Your task to perform on an android device: turn smart compose on in the gmail app Image 0: 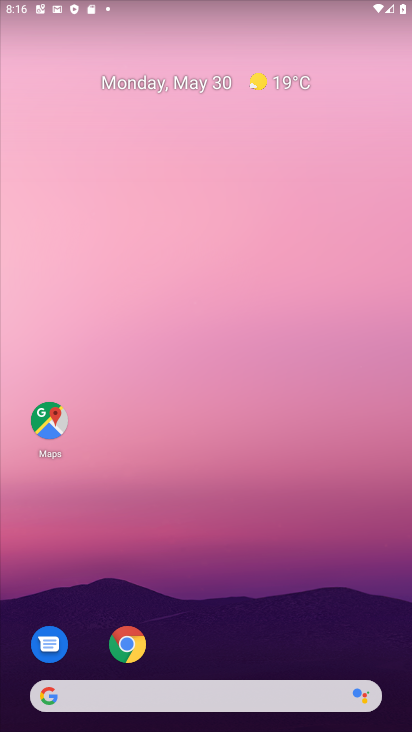
Step 0: drag from (397, 566) to (351, 149)
Your task to perform on an android device: turn smart compose on in the gmail app Image 1: 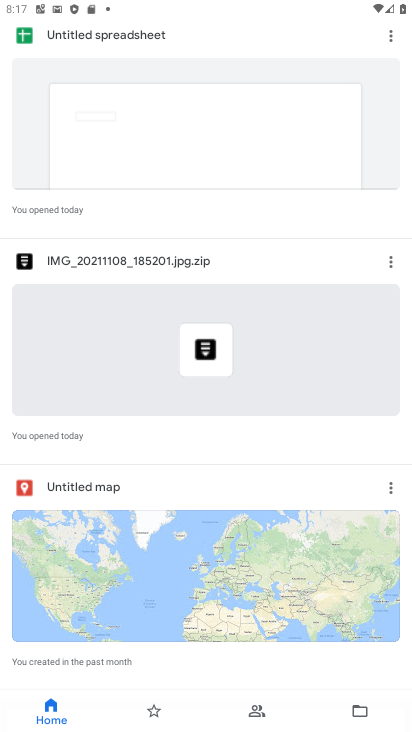
Step 1: press home button
Your task to perform on an android device: turn smart compose on in the gmail app Image 2: 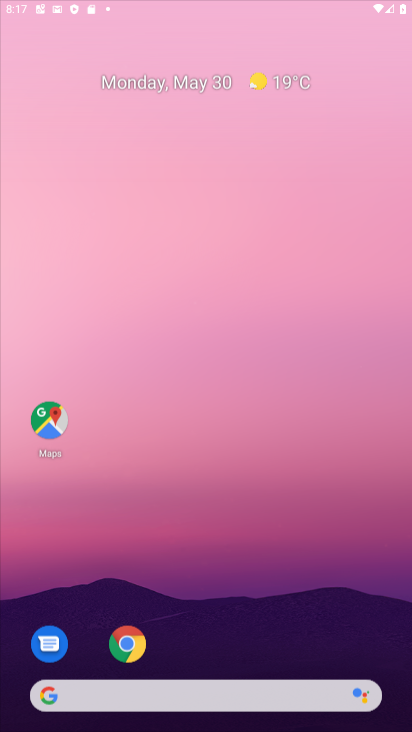
Step 2: drag from (265, 496) to (260, 17)
Your task to perform on an android device: turn smart compose on in the gmail app Image 3: 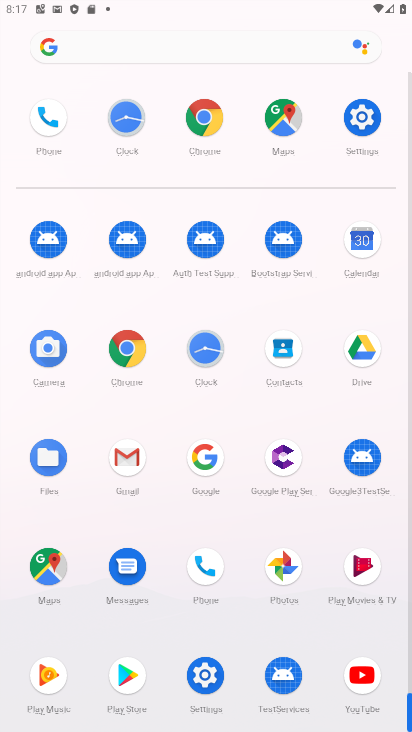
Step 3: click (116, 449)
Your task to perform on an android device: turn smart compose on in the gmail app Image 4: 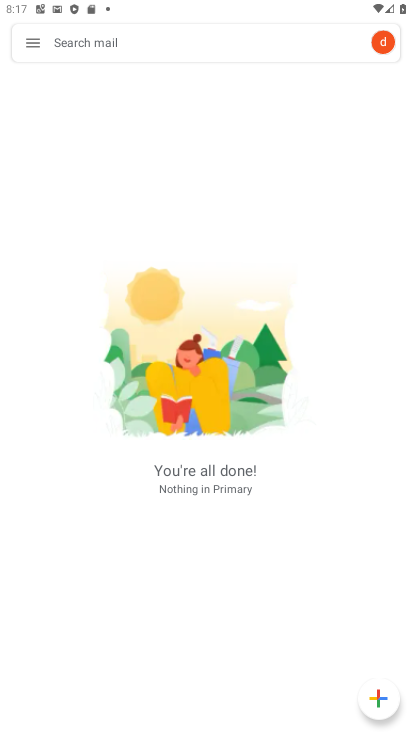
Step 4: click (17, 48)
Your task to perform on an android device: turn smart compose on in the gmail app Image 5: 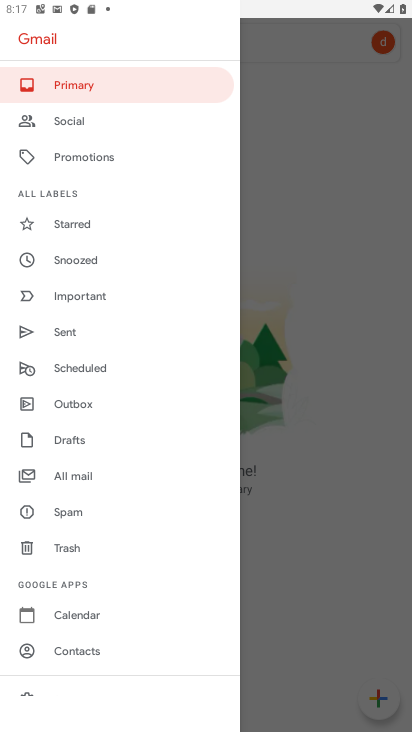
Step 5: drag from (117, 585) to (165, 128)
Your task to perform on an android device: turn smart compose on in the gmail app Image 6: 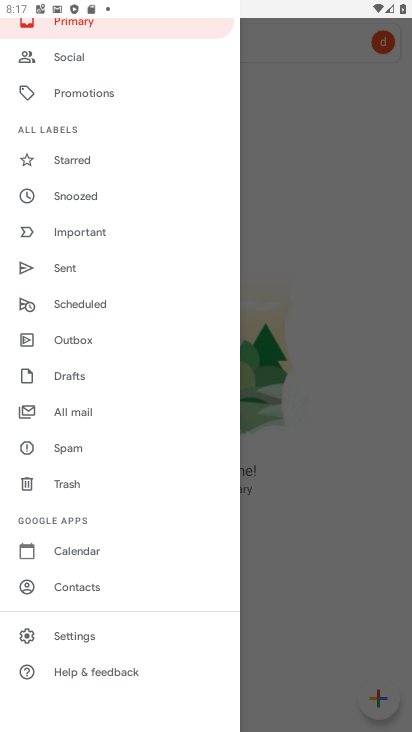
Step 6: click (74, 633)
Your task to perform on an android device: turn smart compose on in the gmail app Image 7: 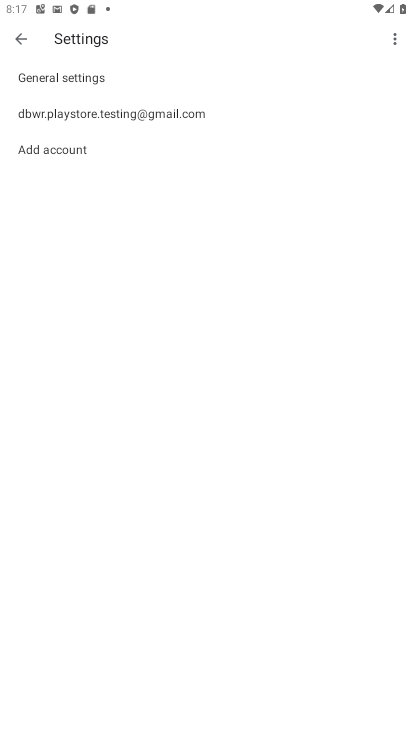
Step 7: click (192, 118)
Your task to perform on an android device: turn smart compose on in the gmail app Image 8: 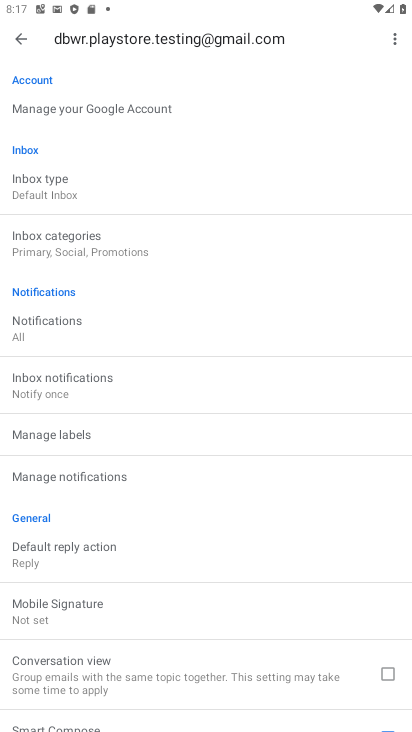
Step 8: task complete